Your task to perform on an android device: turn off wifi Image 0: 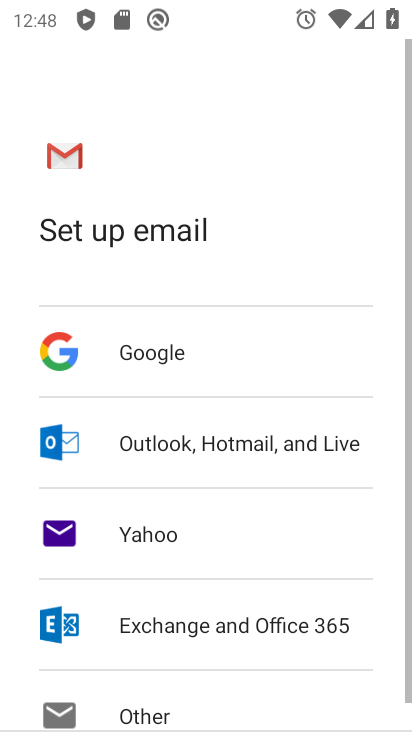
Step 0: press home button
Your task to perform on an android device: turn off wifi Image 1: 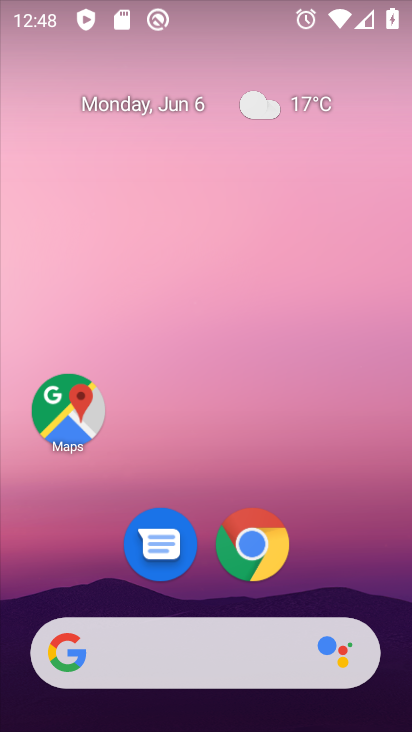
Step 1: drag from (364, 576) to (296, 212)
Your task to perform on an android device: turn off wifi Image 2: 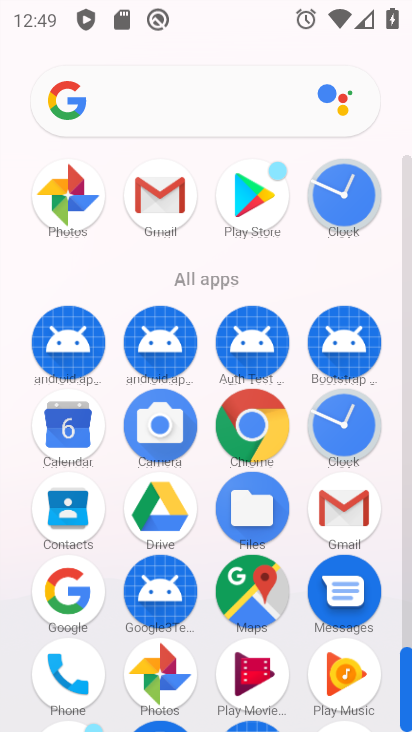
Step 2: drag from (397, 604) to (384, 419)
Your task to perform on an android device: turn off wifi Image 3: 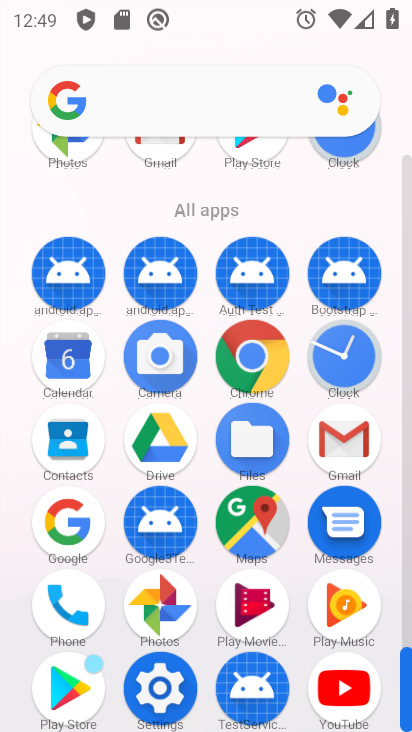
Step 3: click (171, 704)
Your task to perform on an android device: turn off wifi Image 4: 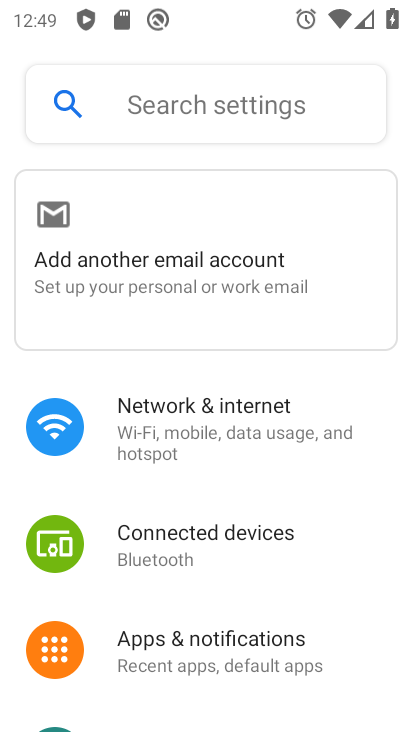
Step 4: click (266, 440)
Your task to perform on an android device: turn off wifi Image 5: 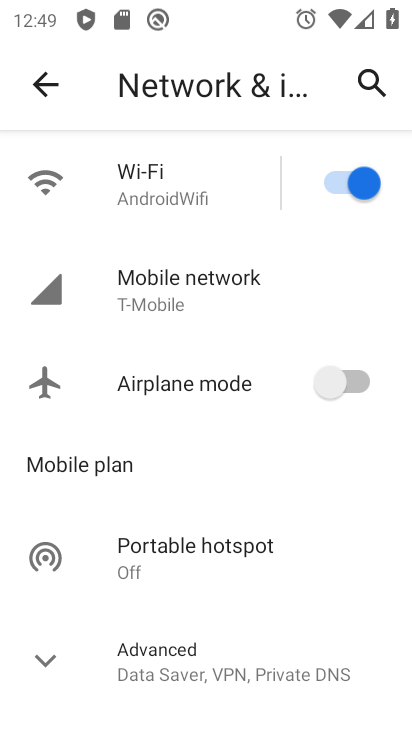
Step 5: click (354, 171)
Your task to perform on an android device: turn off wifi Image 6: 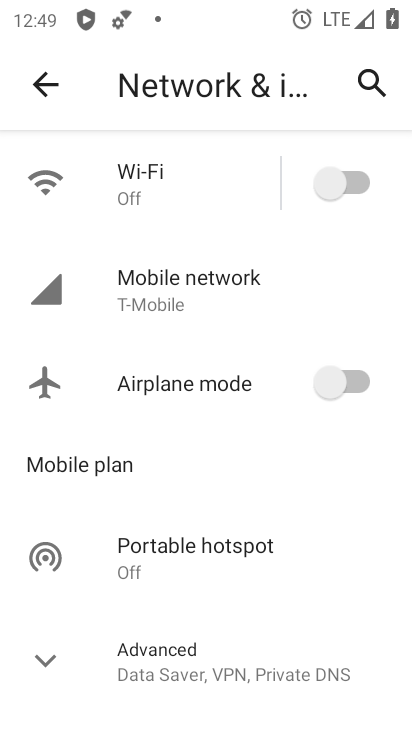
Step 6: task complete